Your task to perform on an android device: toggle notifications settings in the gmail app Image 0: 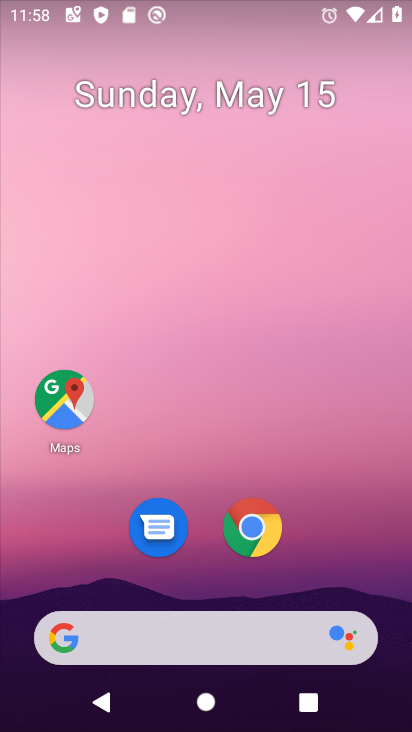
Step 0: drag from (373, 576) to (327, 35)
Your task to perform on an android device: toggle notifications settings in the gmail app Image 1: 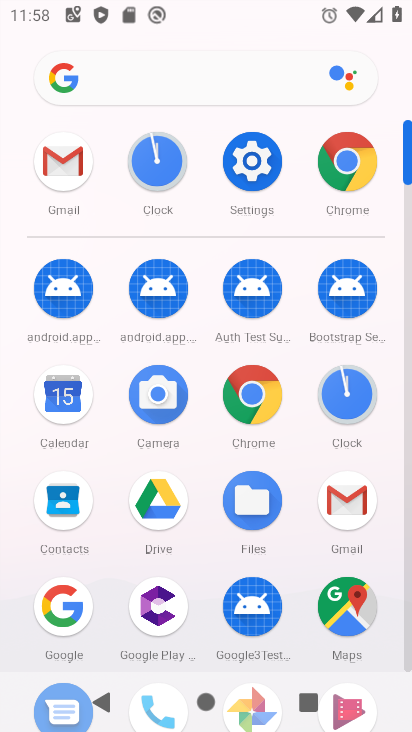
Step 1: click (66, 175)
Your task to perform on an android device: toggle notifications settings in the gmail app Image 2: 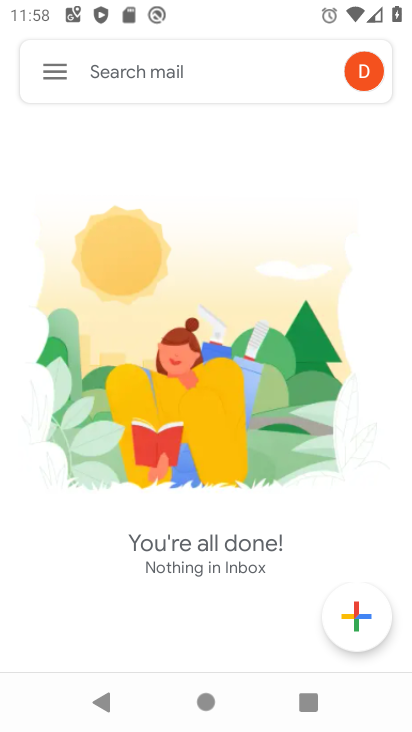
Step 2: click (70, 79)
Your task to perform on an android device: toggle notifications settings in the gmail app Image 3: 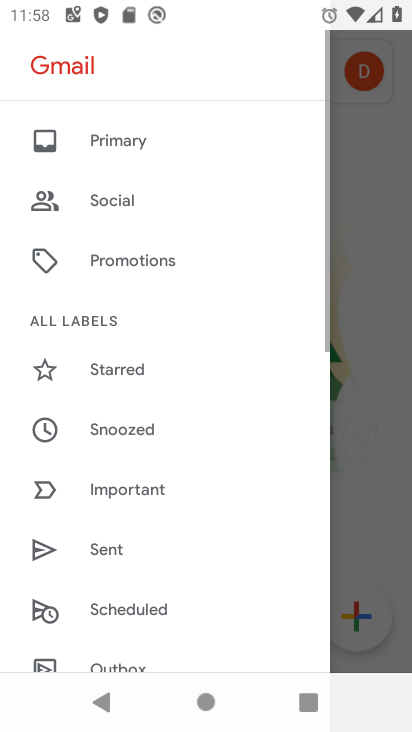
Step 3: drag from (150, 545) to (197, 261)
Your task to perform on an android device: toggle notifications settings in the gmail app Image 4: 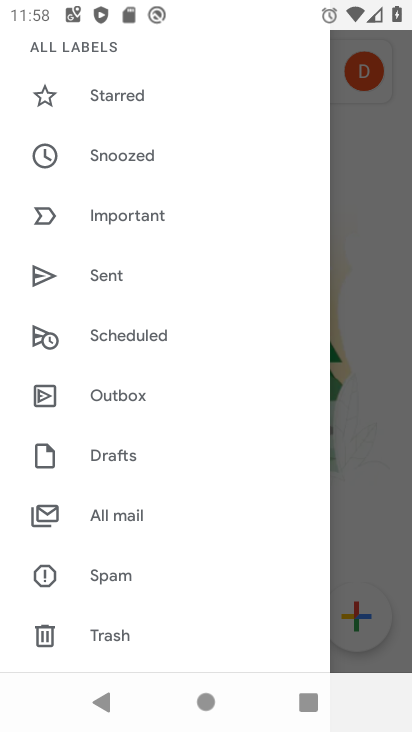
Step 4: drag from (176, 600) to (205, 334)
Your task to perform on an android device: toggle notifications settings in the gmail app Image 5: 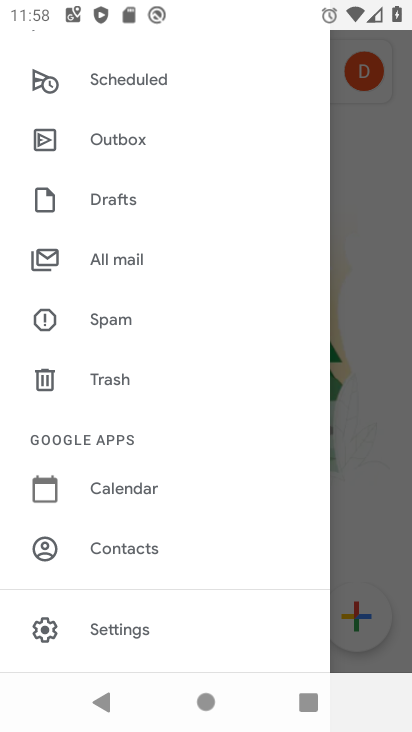
Step 5: click (147, 627)
Your task to perform on an android device: toggle notifications settings in the gmail app Image 6: 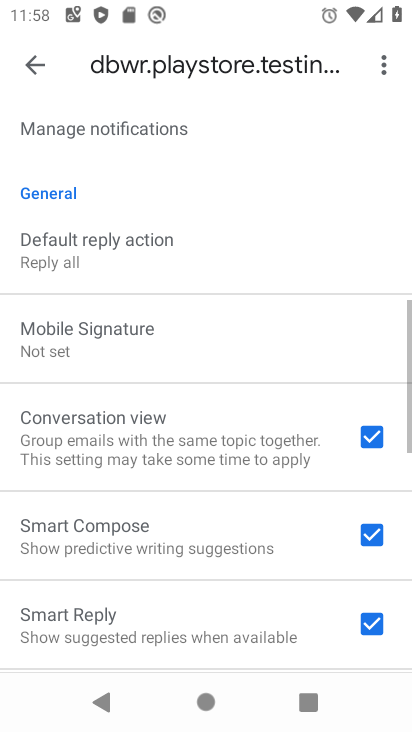
Step 6: drag from (137, 488) to (205, 188)
Your task to perform on an android device: toggle notifications settings in the gmail app Image 7: 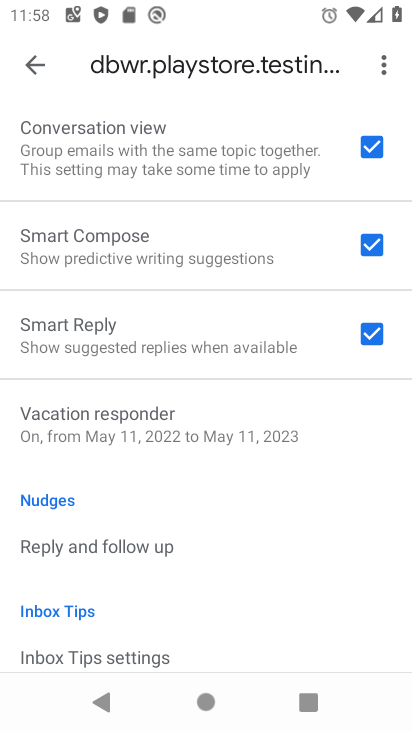
Step 7: drag from (134, 617) to (206, 367)
Your task to perform on an android device: toggle notifications settings in the gmail app Image 8: 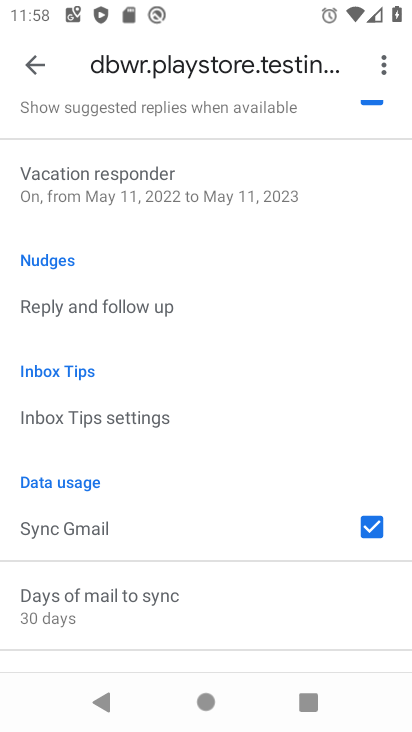
Step 8: drag from (165, 534) to (208, 278)
Your task to perform on an android device: toggle notifications settings in the gmail app Image 9: 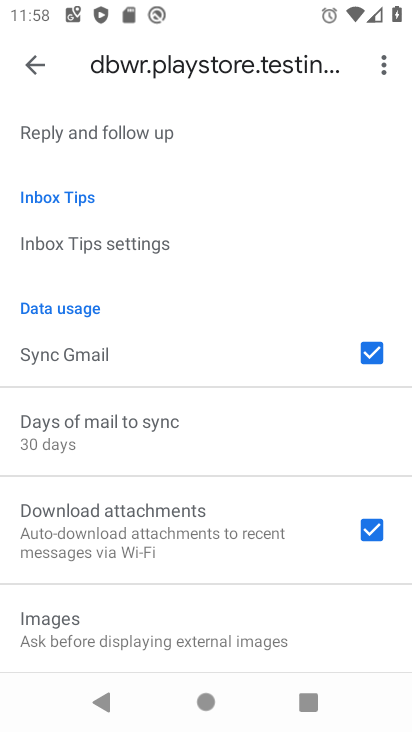
Step 9: drag from (177, 502) to (260, 204)
Your task to perform on an android device: toggle notifications settings in the gmail app Image 10: 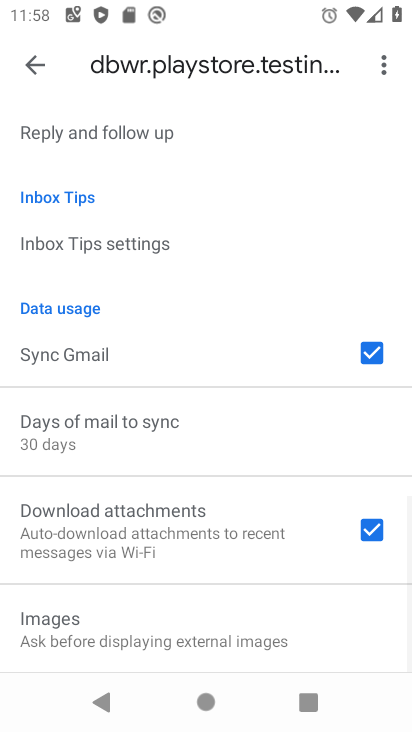
Step 10: drag from (220, 221) to (237, 671)
Your task to perform on an android device: toggle notifications settings in the gmail app Image 11: 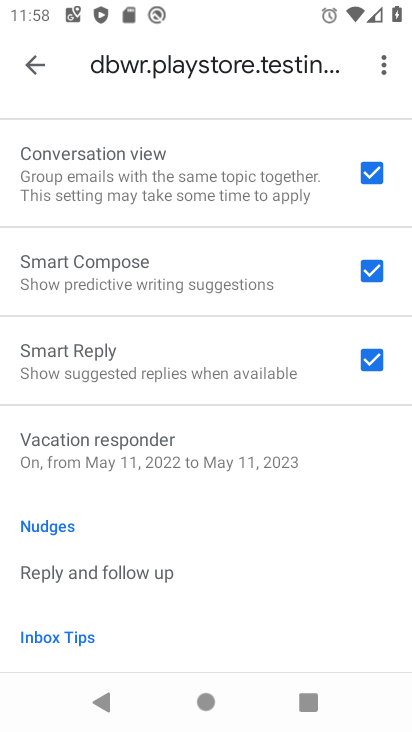
Step 11: drag from (239, 248) to (248, 494)
Your task to perform on an android device: toggle notifications settings in the gmail app Image 12: 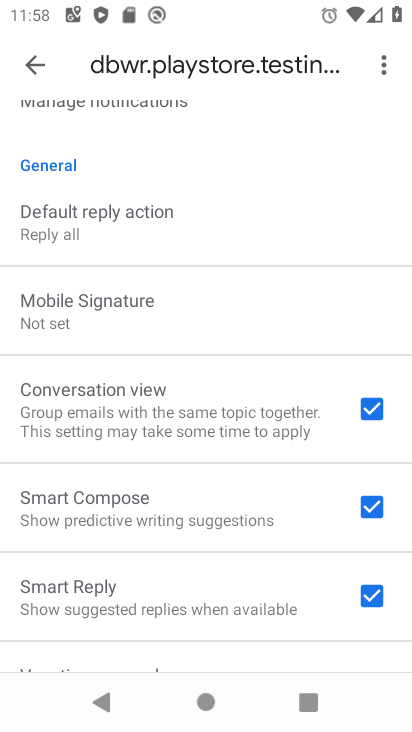
Step 12: drag from (234, 249) to (231, 433)
Your task to perform on an android device: toggle notifications settings in the gmail app Image 13: 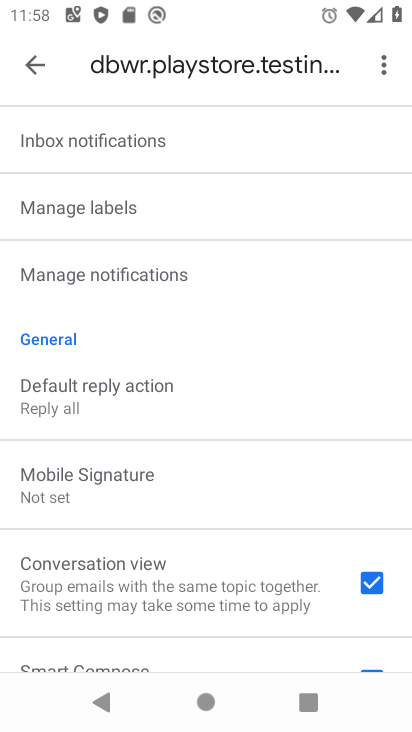
Step 13: click (247, 281)
Your task to perform on an android device: toggle notifications settings in the gmail app Image 14: 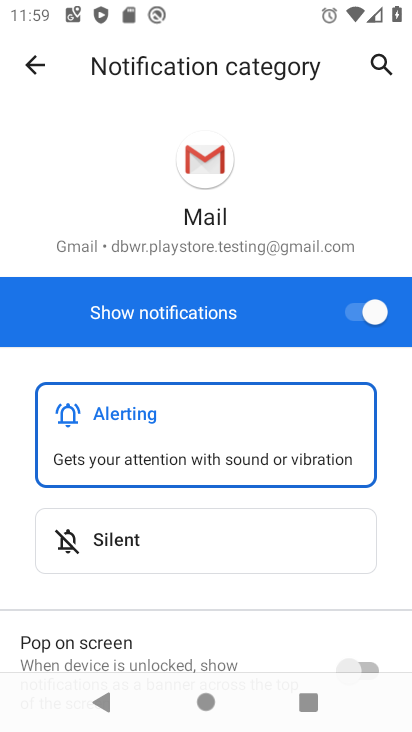
Step 14: click (347, 320)
Your task to perform on an android device: toggle notifications settings in the gmail app Image 15: 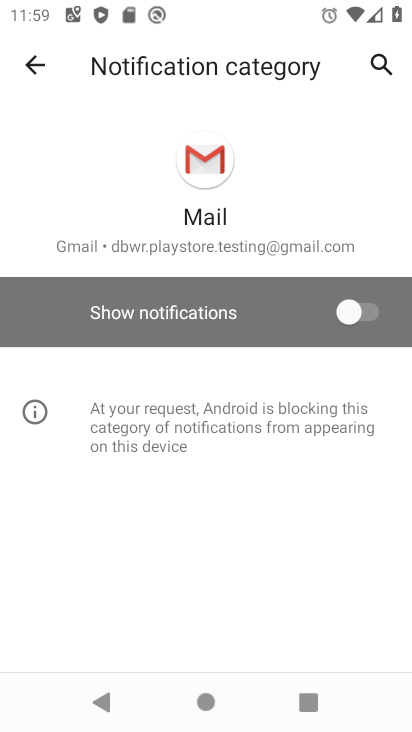
Step 15: task complete